Your task to perform on an android device: Search for flights from Mexico city to Zurich Image 0: 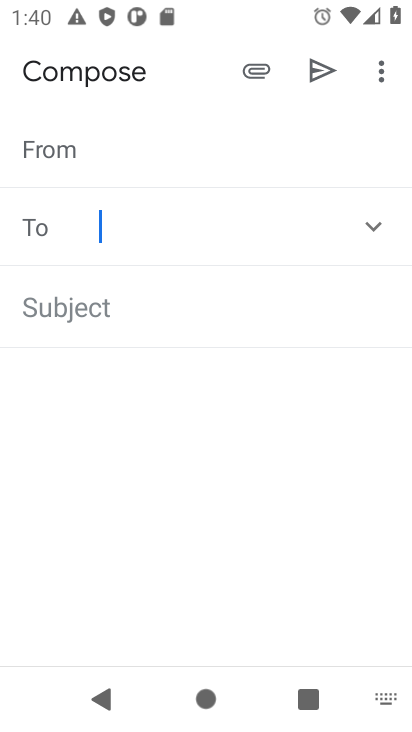
Step 0: press home button
Your task to perform on an android device: Search for flights from Mexico city to Zurich Image 1: 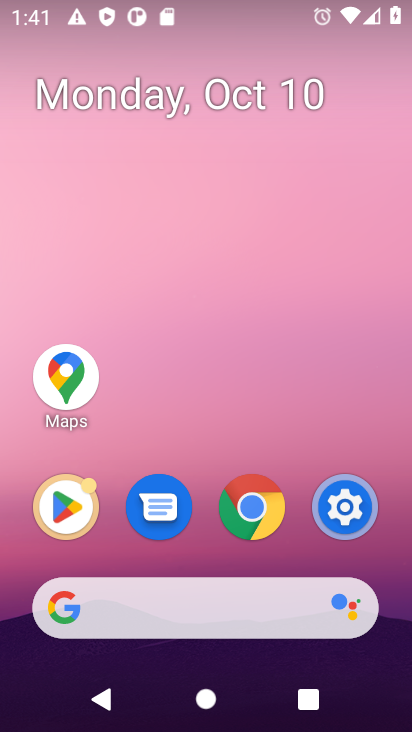
Step 1: click (194, 618)
Your task to perform on an android device: Search for flights from Mexico city to Zurich Image 2: 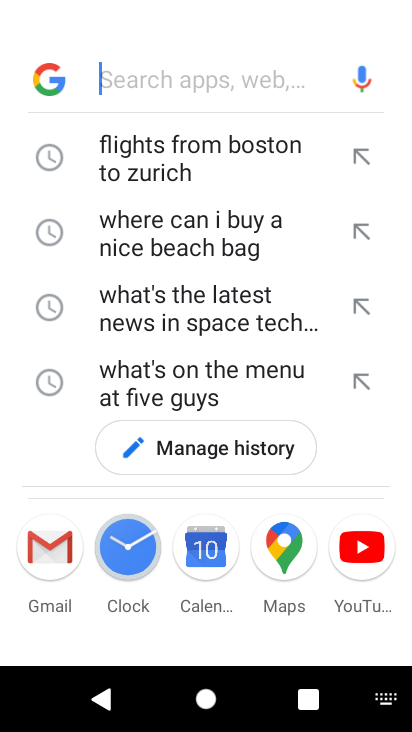
Step 2: type "flights from Mexico city to Zurich"
Your task to perform on an android device: Search for flights from Mexico city to Zurich Image 3: 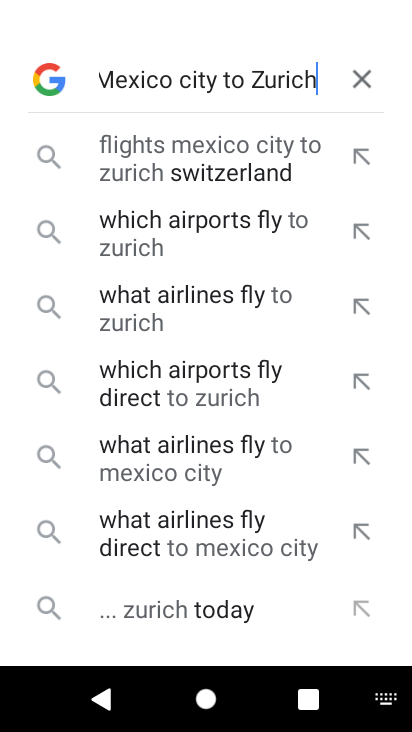
Step 3: press enter
Your task to perform on an android device: Search for flights from Mexico city to Zurich Image 4: 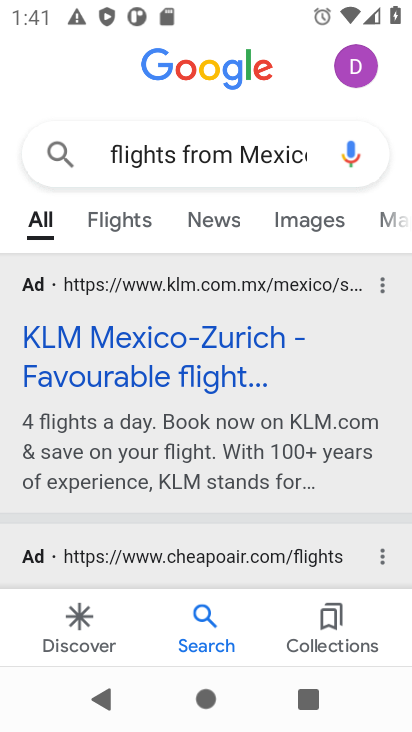
Step 4: drag from (237, 477) to (253, 325)
Your task to perform on an android device: Search for flights from Mexico city to Zurich Image 5: 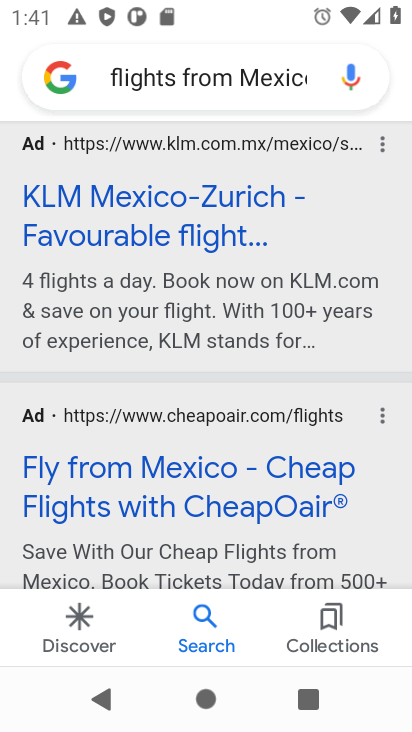
Step 5: drag from (276, 212) to (252, 505)
Your task to perform on an android device: Search for flights from Mexico city to Zurich Image 6: 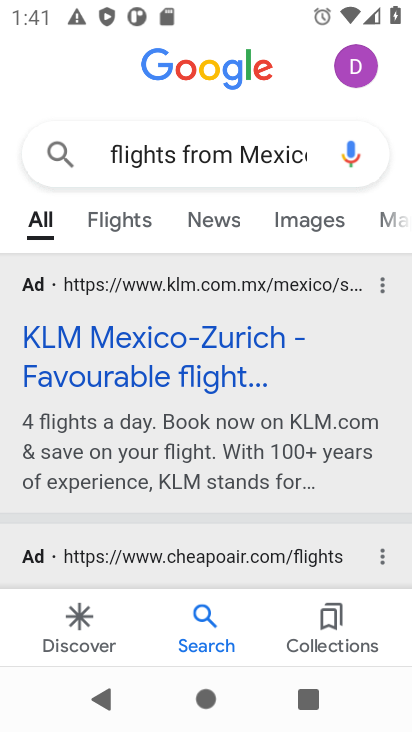
Step 6: drag from (251, 478) to (235, 255)
Your task to perform on an android device: Search for flights from Mexico city to Zurich Image 7: 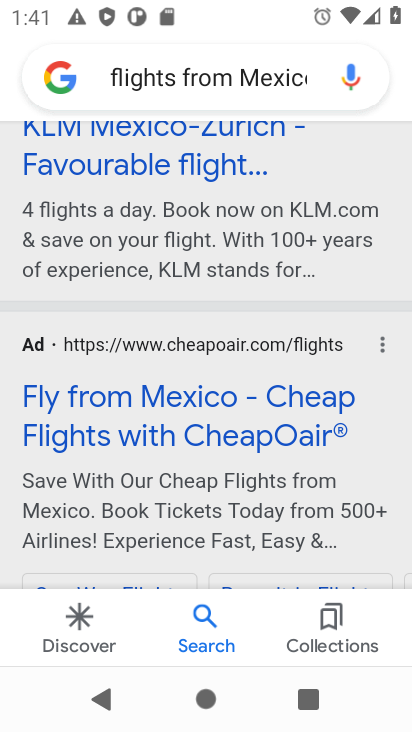
Step 7: drag from (242, 447) to (236, 308)
Your task to perform on an android device: Search for flights from Mexico city to Zurich Image 8: 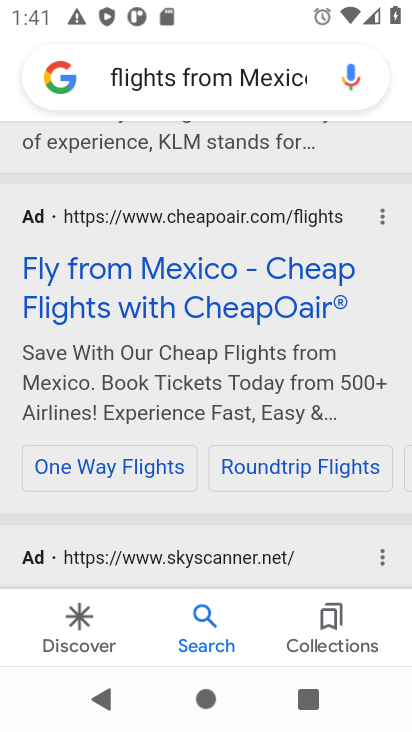
Step 8: drag from (208, 499) to (204, 297)
Your task to perform on an android device: Search for flights from Mexico city to Zurich Image 9: 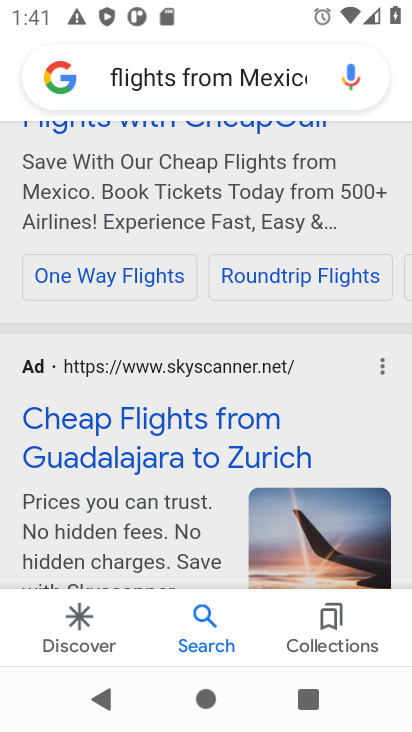
Step 9: drag from (149, 516) to (151, 233)
Your task to perform on an android device: Search for flights from Mexico city to Zurich Image 10: 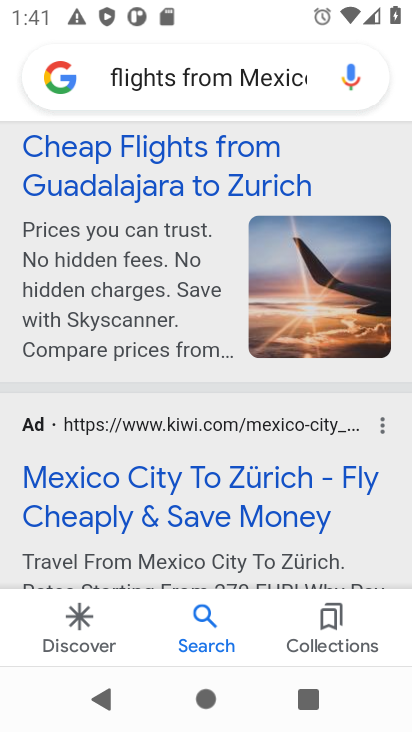
Step 10: drag from (197, 562) to (192, 187)
Your task to perform on an android device: Search for flights from Mexico city to Zurich Image 11: 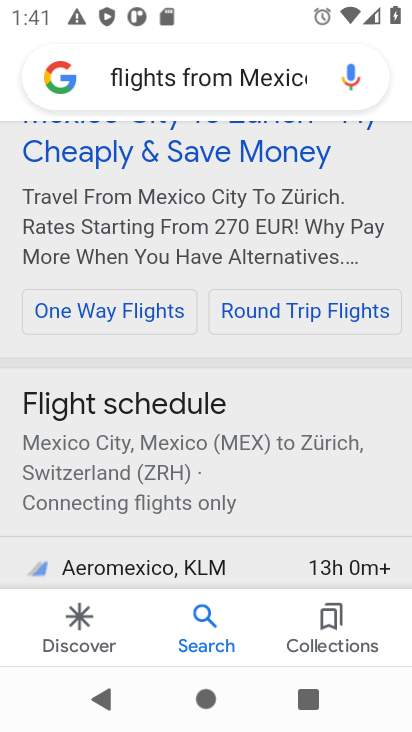
Step 11: drag from (215, 478) to (214, 241)
Your task to perform on an android device: Search for flights from Mexico city to Zurich Image 12: 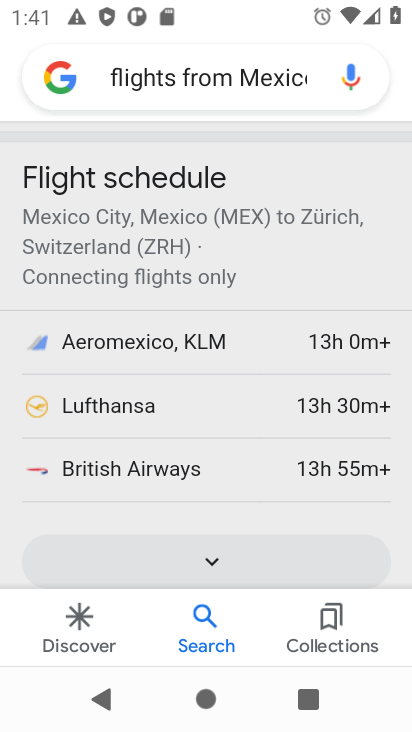
Step 12: click (208, 564)
Your task to perform on an android device: Search for flights from Mexico city to Zurich Image 13: 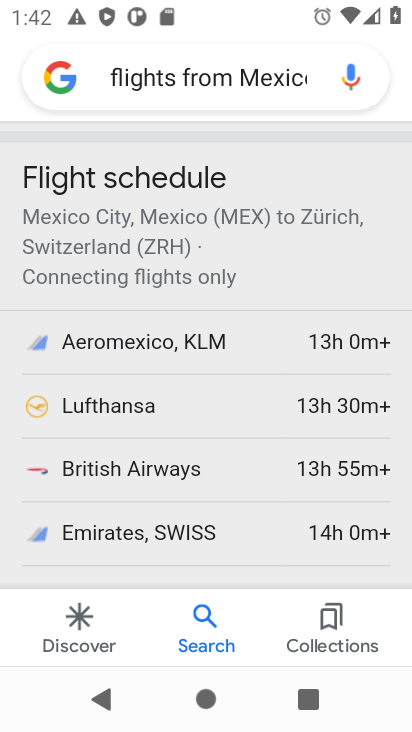
Step 13: task complete